Your task to perform on an android device: turn on priority inbox in the gmail app Image 0: 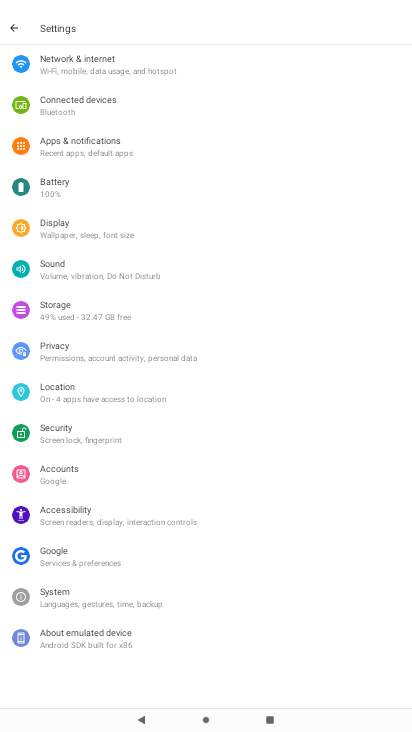
Step 0: press home button
Your task to perform on an android device: turn on priority inbox in the gmail app Image 1: 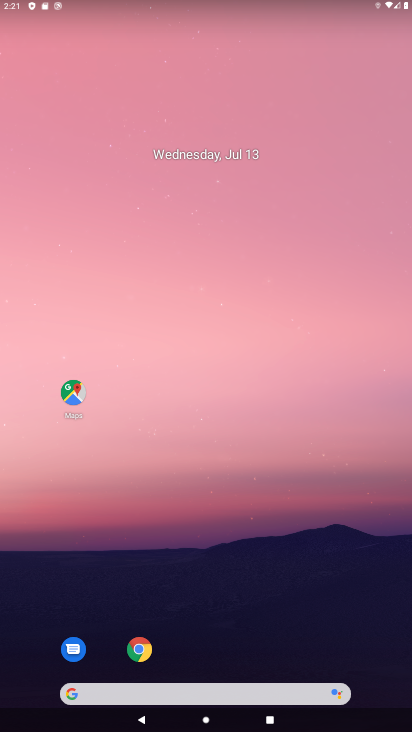
Step 1: drag from (214, 544) to (214, 110)
Your task to perform on an android device: turn on priority inbox in the gmail app Image 2: 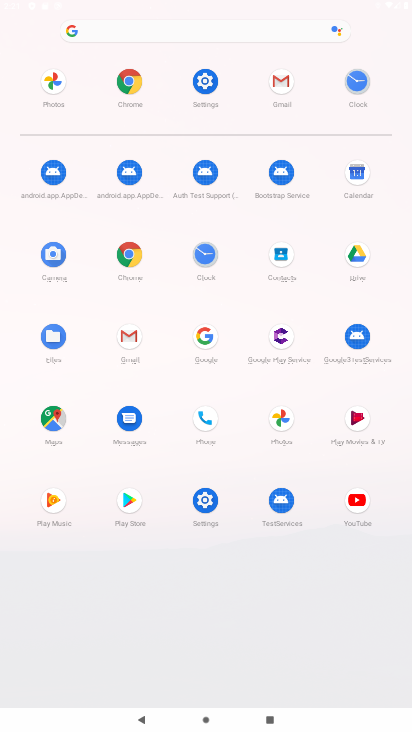
Step 2: click (280, 79)
Your task to perform on an android device: turn on priority inbox in the gmail app Image 3: 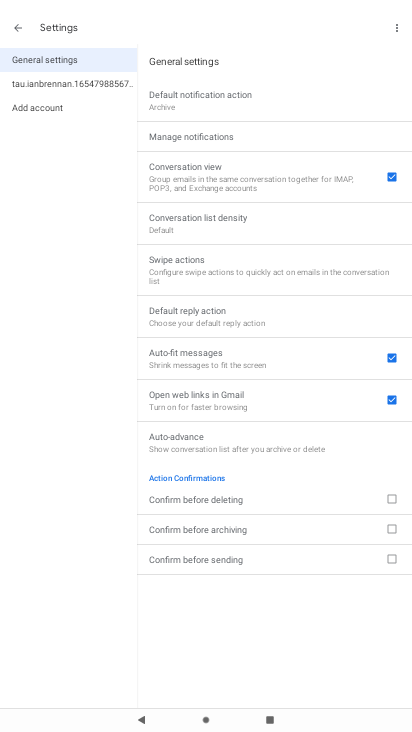
Step 3: click (48, 83)
Your task to perform on an android device: turn on priority inbox in the gmail app Image 4: 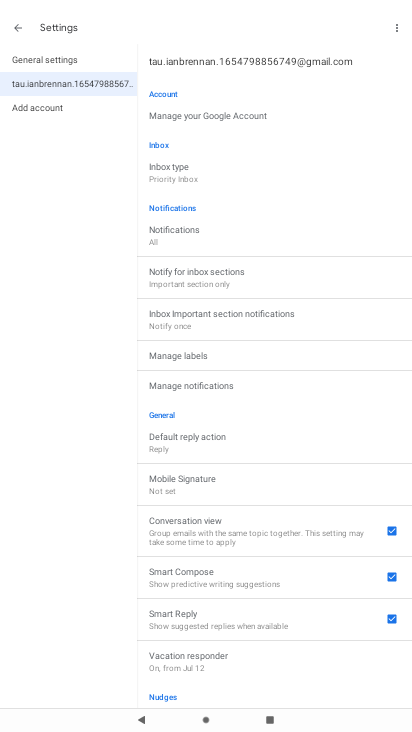
Step 4: click (162, 172)
Your task to perform on an android device: turn on priority inbox in the gmail app Image 5: 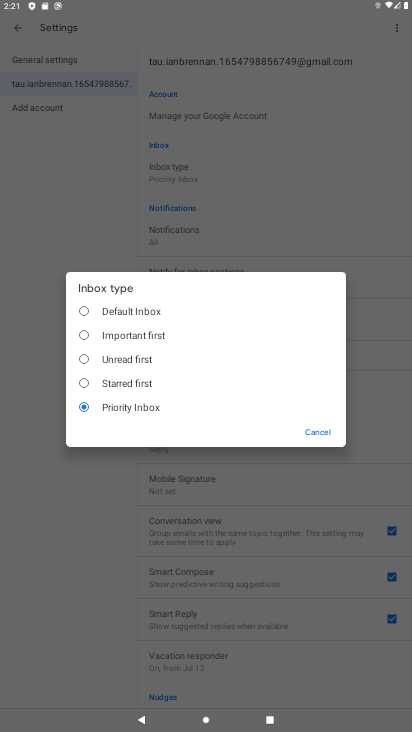
Step 5: task complete